Your task to perform on an android device: stop showing notifications on the lock screen Image 0: 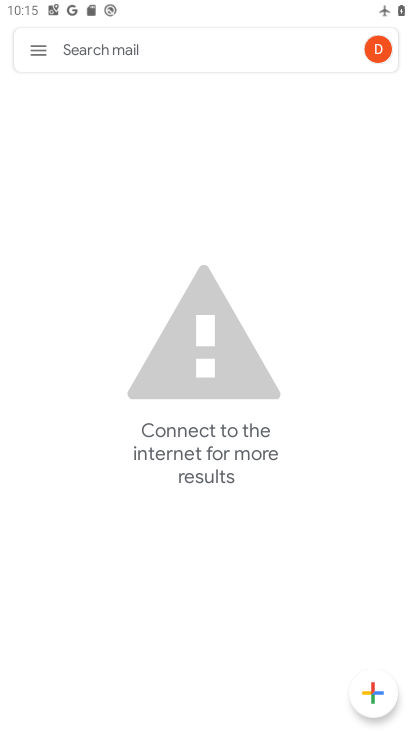
Step 0: press home button
Your task to perform on an android device: stop showing notifications on the lock screen Image 1: 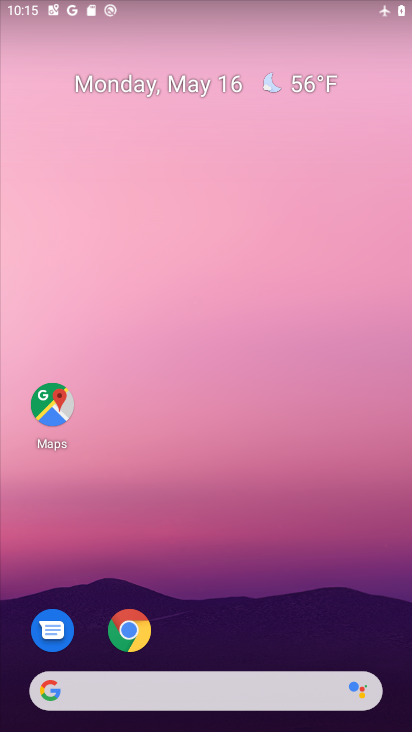
Step 1: drag from (295, 568) to (269, 67)
Your task to perform on an android device: stop showing notifications on the lock screen Image 2: 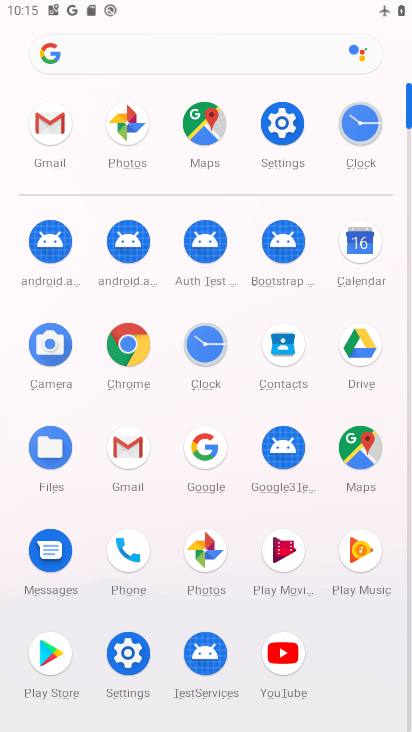
Step 2: click (279, 134)
Your task to perform on an android device: stop showing notifications on the lock screen Image 3: 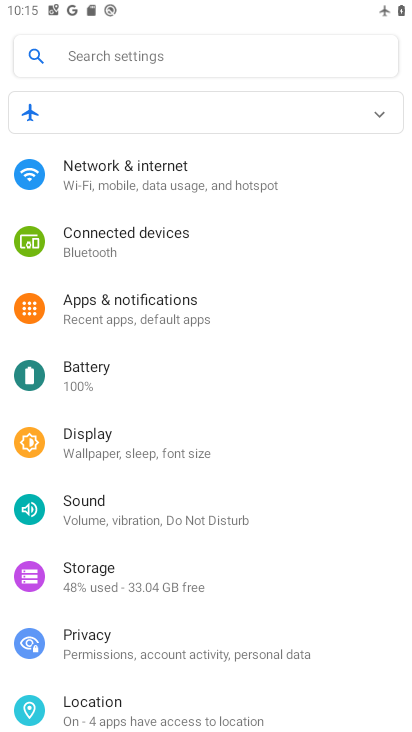
Step 3: click (176, 307)
Your task to perform on an android device: stop showing notifications on the lock screen Image 4: 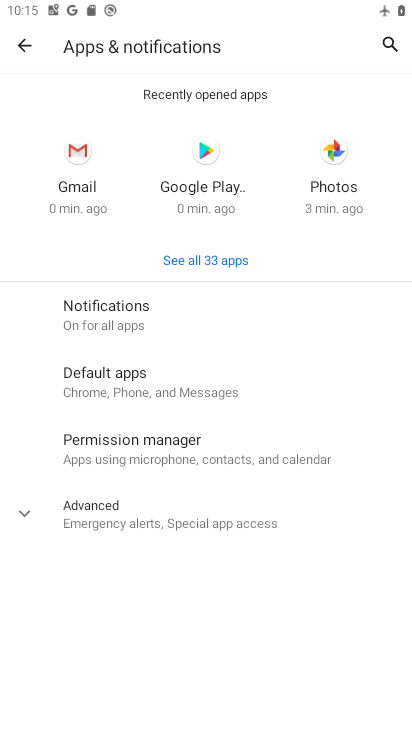
Step 4: click (185, 315)
Your task to perform on an android device: stop showing notifications on the lock screen Image 5: 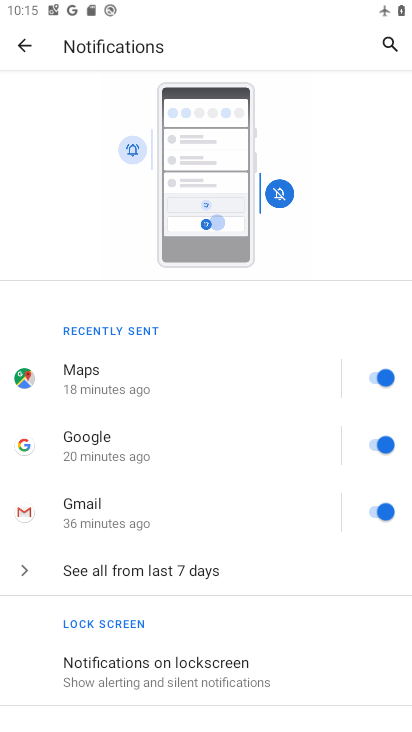
Step 5: click (219, 667)
Your task to perform on an android device: stop showing notifications on the lock screen Image 6: 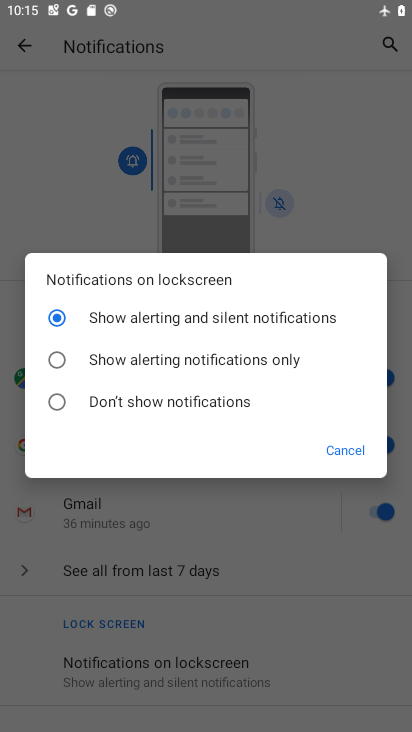
Step 6: click (52, 399)
Your task to perform on an android device: stop showing notifications on the lock screen Image 7: 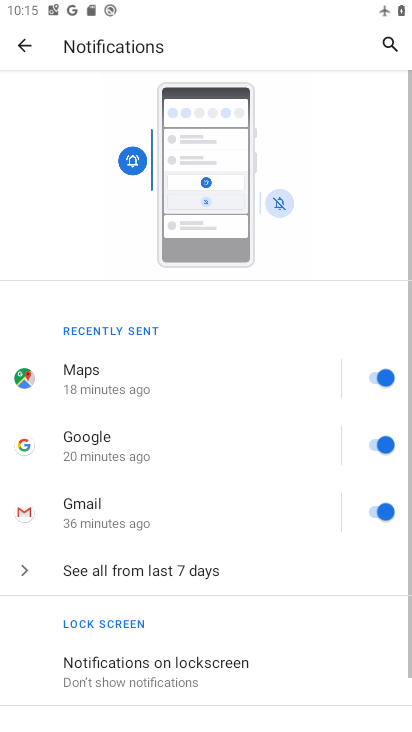
Step 7: task complete